Your task to perform on an android device: Is it going to rain today? Image 0: 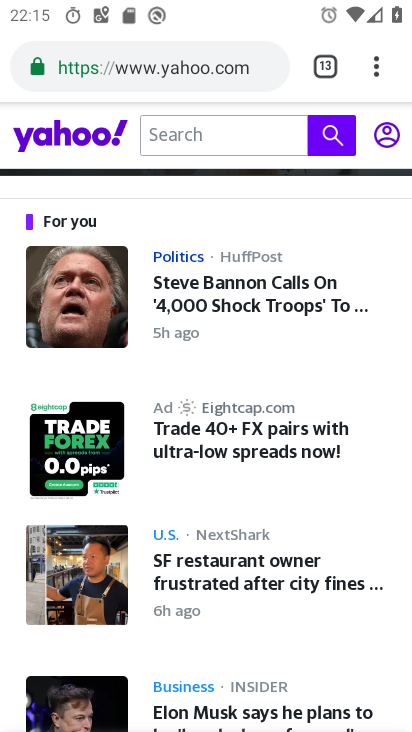
Step 0: press home button
Your task to perform on an android device: Is it going to rain today? Image 1: 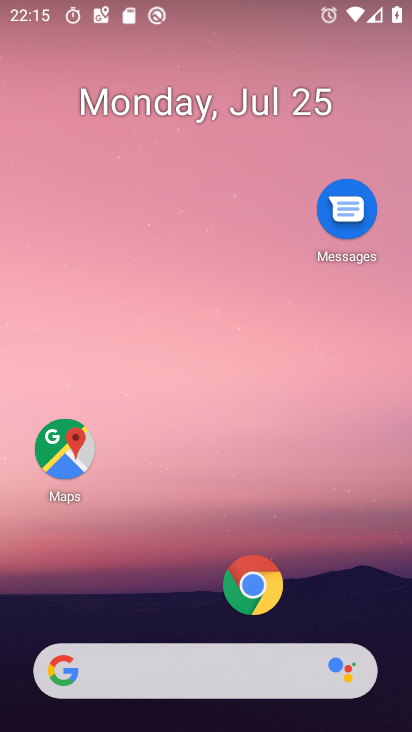
Step 1: click (137, 667)
Your task to perform on an android device: Is it going to rain today? Image 2: 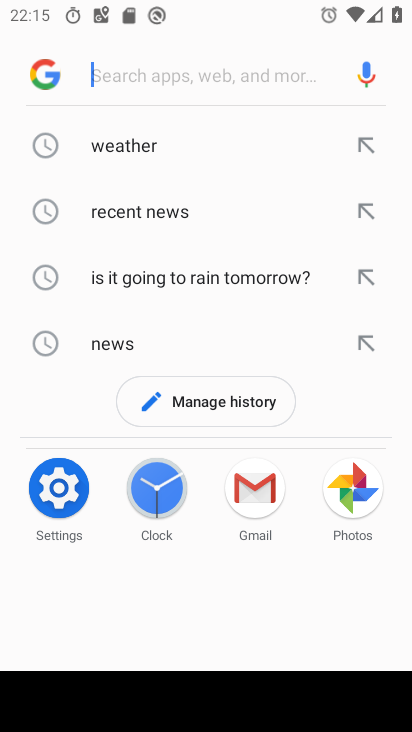
Step 2: click (135, 151)
Your task to perform on an android device: Is it going to rain today? Image 3: 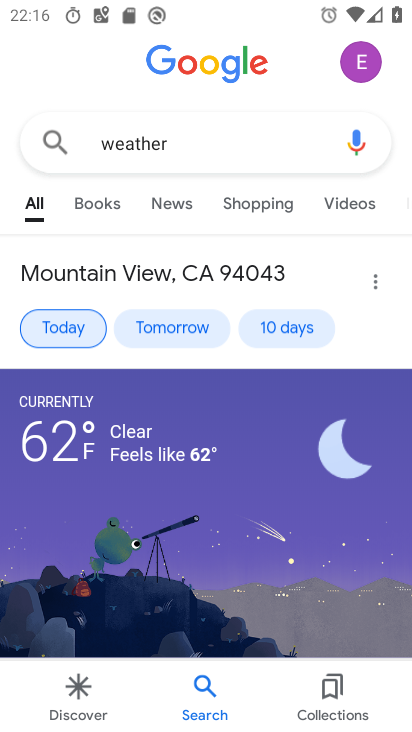
Step 3: task complete